Your task to perform on an android device: refresh tabs in the chrome app Image 0: 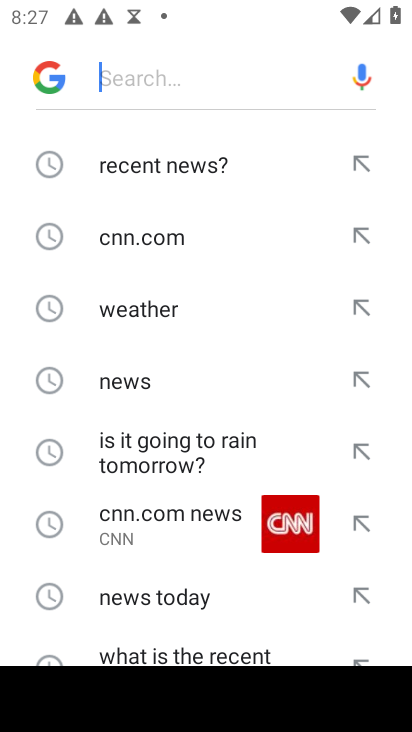
Step 0: press home button
Your task to perform on an android device: refresh tabs in the chrome app Image 1: 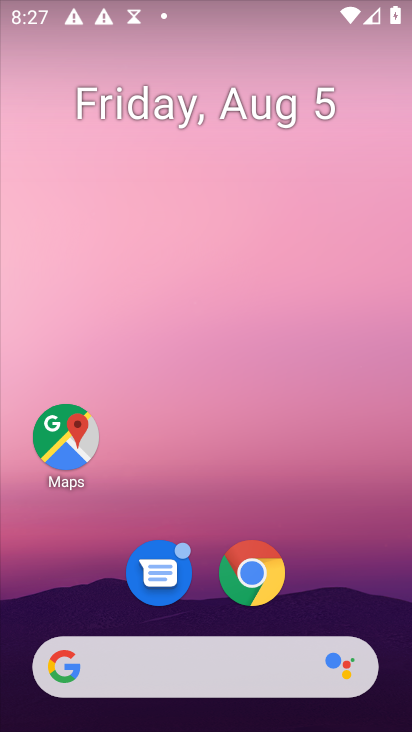
Step 1: click (257, 572)
Your task to perform on an android device: refresh tabs in the chrome app Image 2: 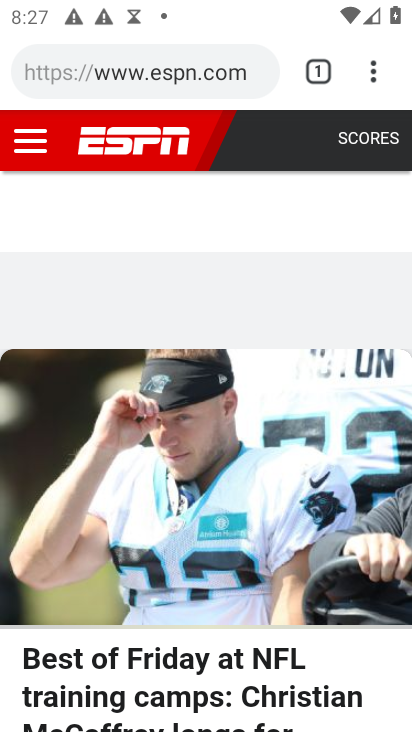
Step 2: click (372, 86)
Your task to perform on an android device: refresh tabs in the chrome app Image 3: 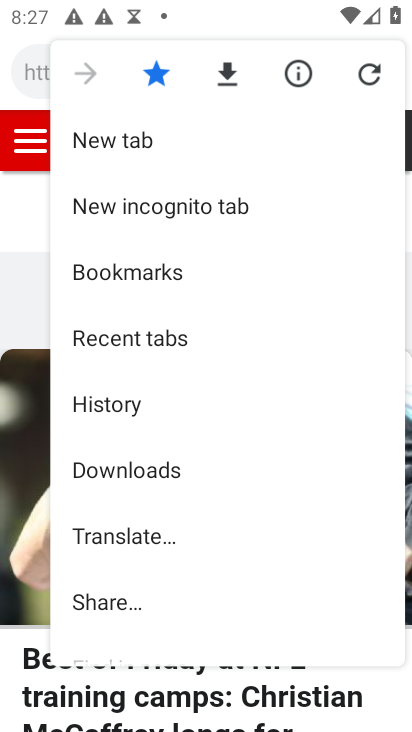
Step 3: click (373, 67)
Your task to perform on an android device: refresh tabs in the chrome app Image 4: 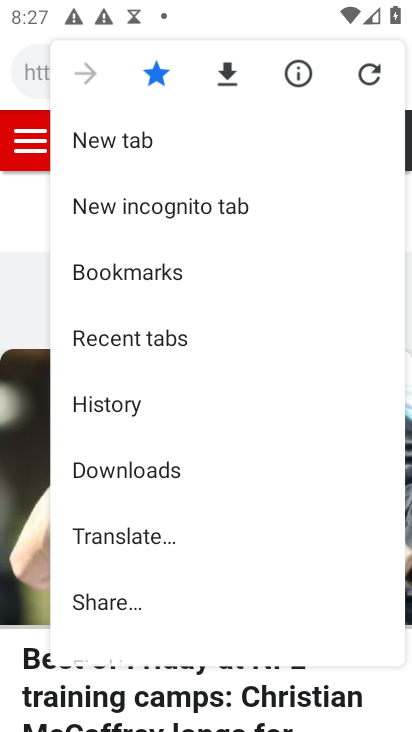
Step 4: click (373, 67)
Your task to perform on an android device: refresh tabs in the chrome app Image 5: 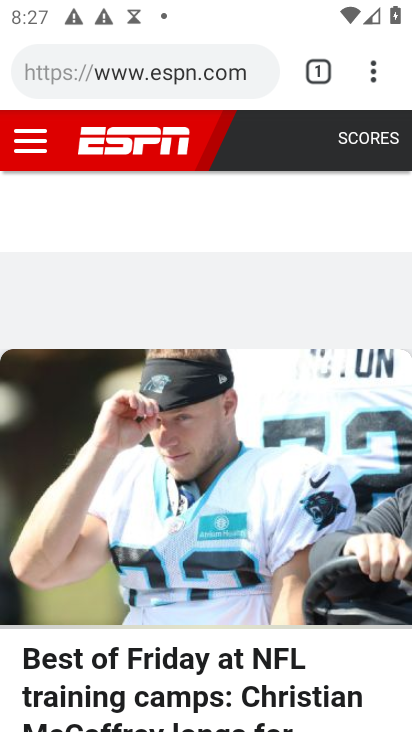
Step 5: task complete